Your task to perform on an android device: Search for pizza restaurants on Maps Image 0: 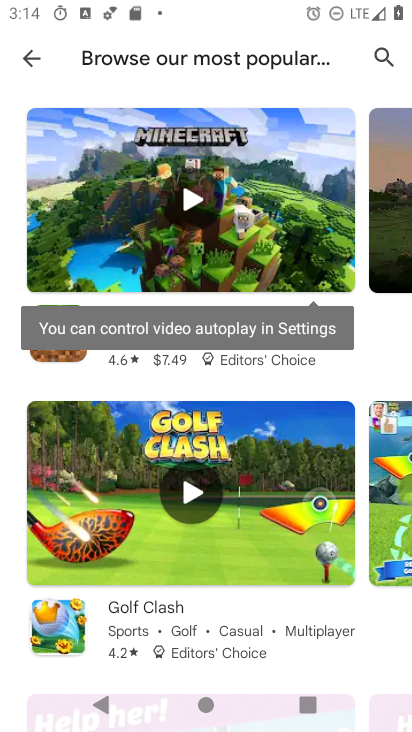
Step 0: press home button
Your task to perform on an android device: Search for pizza restaurants on Maps Image 1: 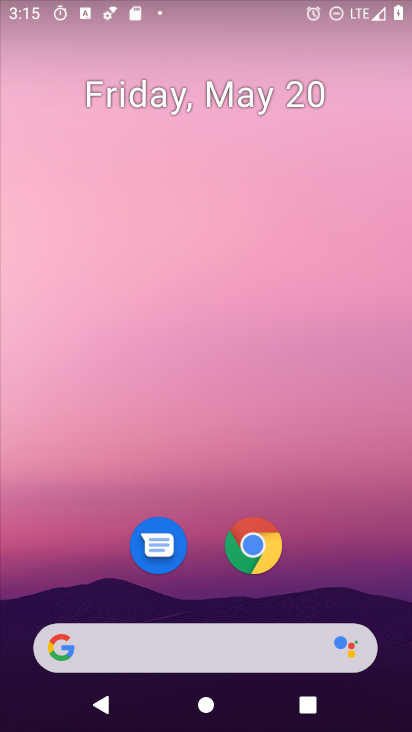
Step 1: drag from (273, 621) to (303, 13)
Your task to perform on an android device: Search for pizza restaurants on Maps Image 2: 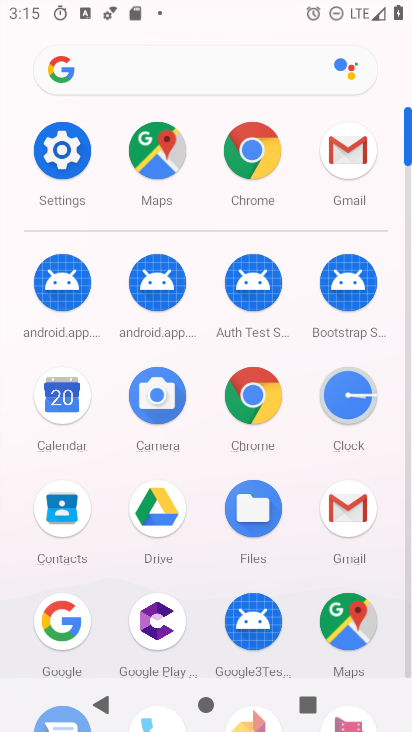
Step 2: click (358, 617)
Your task to perform on an android device: Search for pizza restaurants on Maps Image 3: 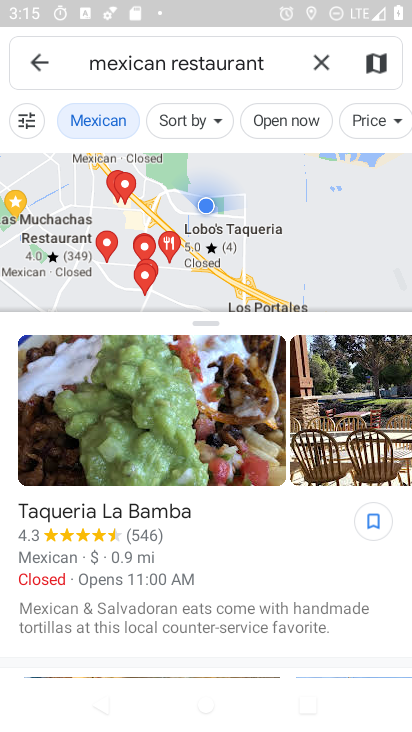
Step 3: click (320, 67)
Your task to perform on an android device: Search for pizza restaurants on Maps Image 4: 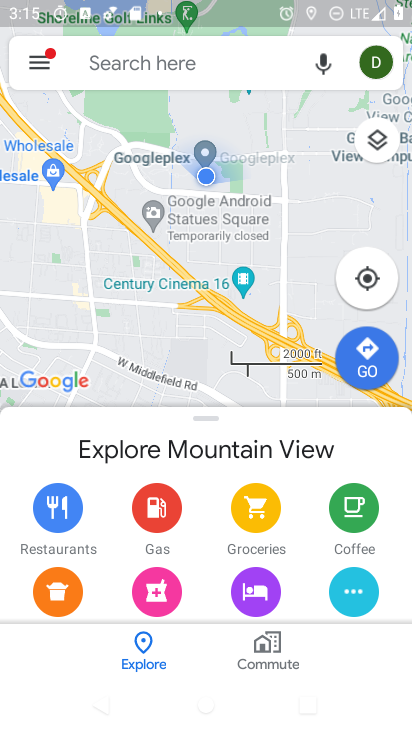
Step 4: click (176, 71)
Your task to perform on an android device: Search for pizza restaurants on Maps Image 5: 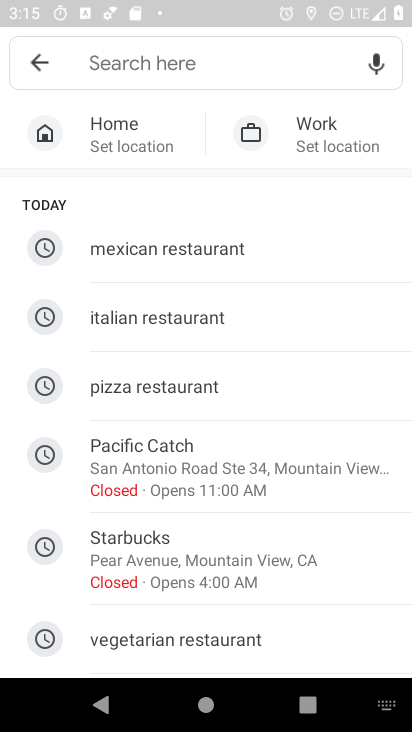
Step 5: click (159, 386)
Your task to perform on an android device: Search for pizza restaurants on Maps Image 6: 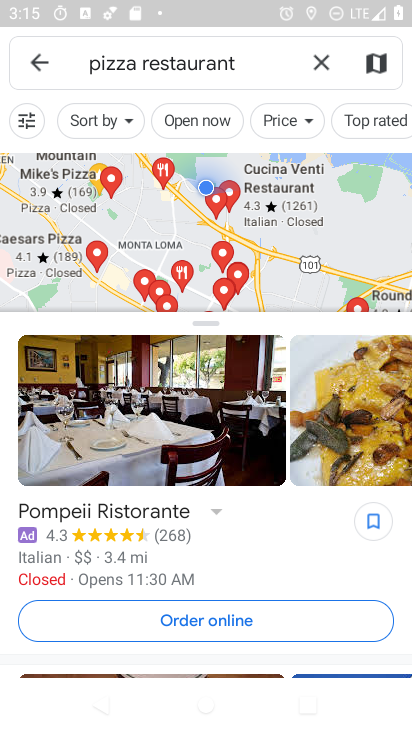
Step 6: task complete